Your task to perform on an android device: find photos in the google photos app Image 0: 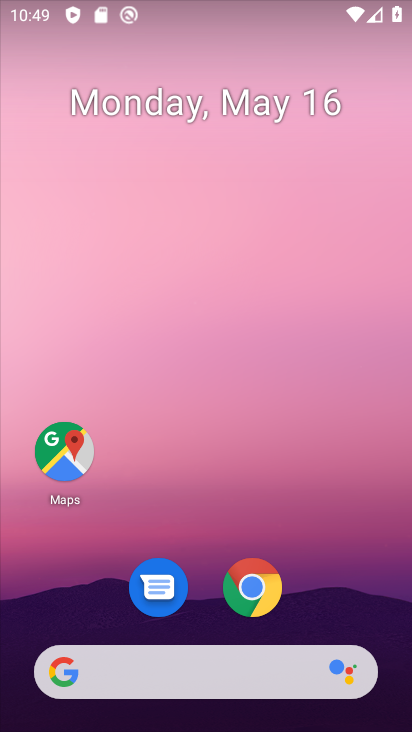
Step 0: drag from (390, 620) to (261, 64)
Your task to perform on an android device: find photos in the google photos app Image 1: 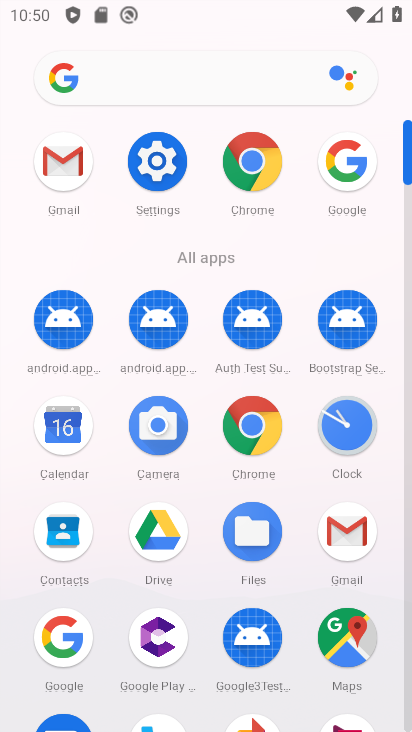
Step 1: drag from (189, 680) to (197, 387)
Your task to perform on an android device: find photos in the google photos app Image 2: 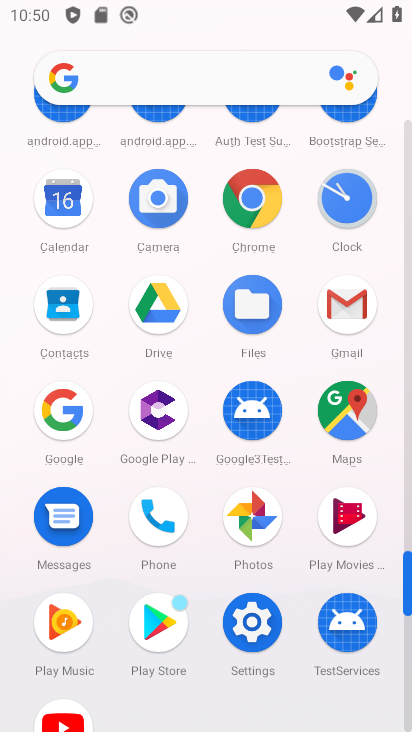
Step 2: click (241, 525)
Your task to perform on an android device: find photos in the google photos app Image 3: 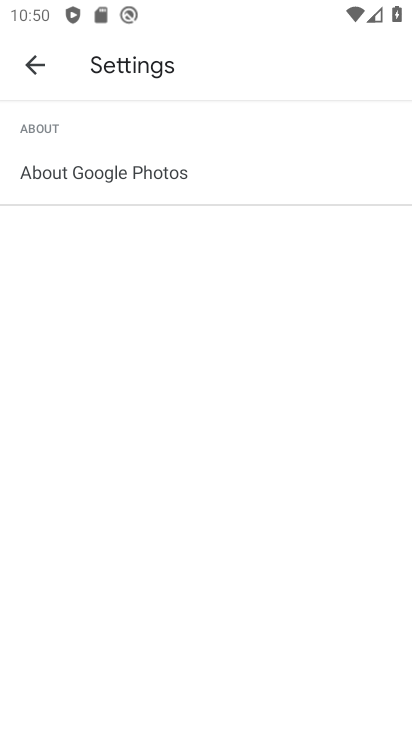
Step 3: task complete